Your task to perform on an android device: check android version Image 0: 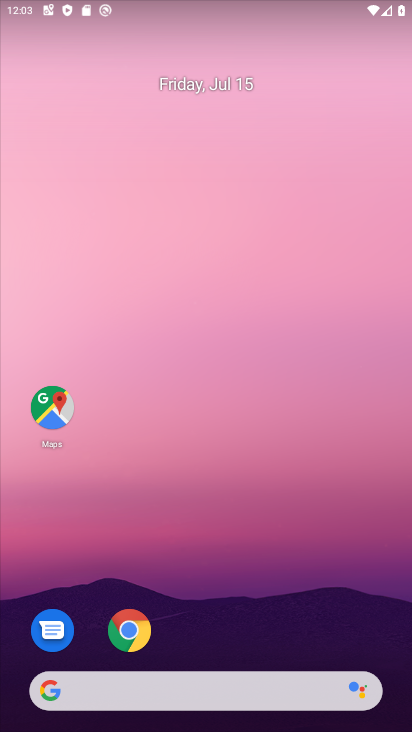
Step 0: drag from (238, 661) to (288, 278)
Your task to perform on an android device: check android version Image 1: 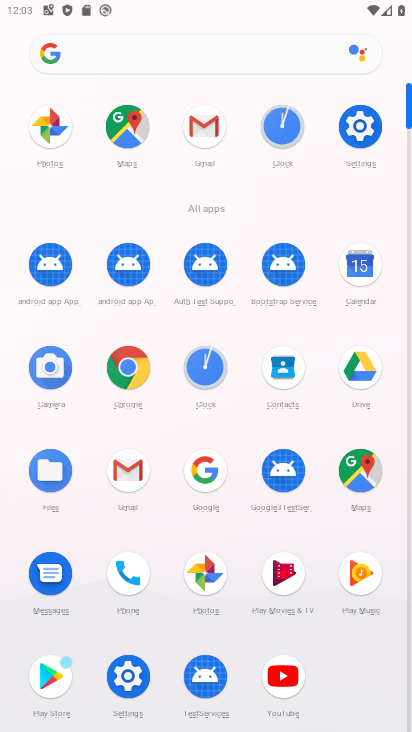
Step 1: click (104, 672)
Your task to perform on an android device: check android version Image 2: 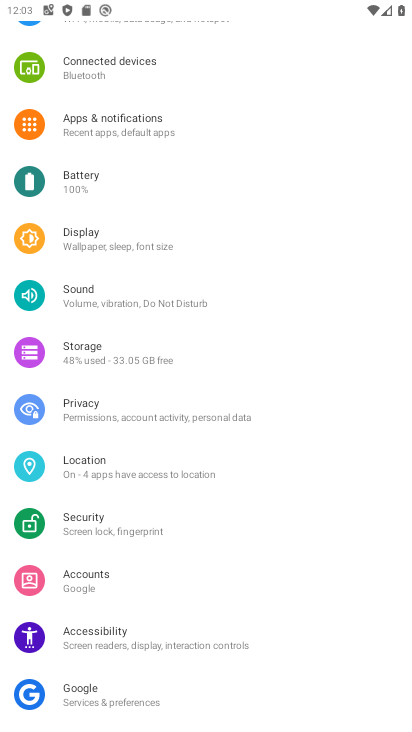
Step 2: drag from (232, 691) to (307, 446)
Your task to perform on an android device: check android version Image 3: 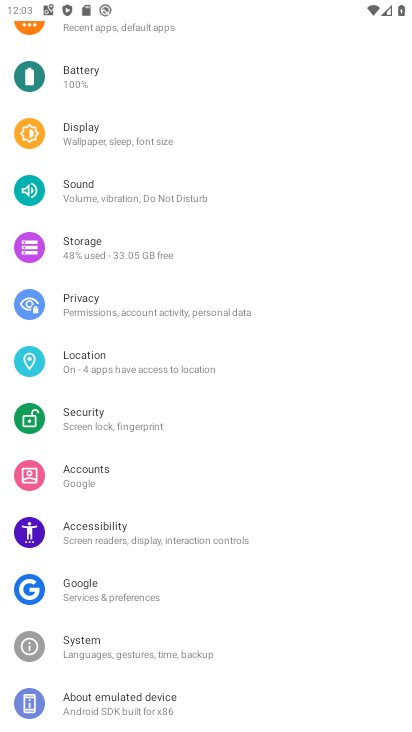
Step 3: click (122, 705)
Your task to perform on an android device: check android version Image 4: 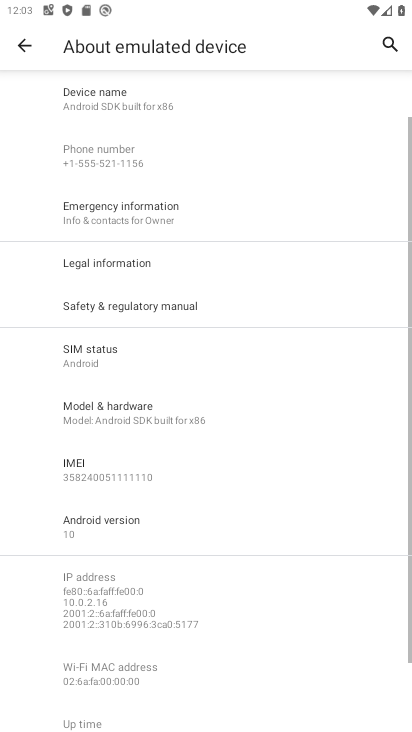
Step 4: click (130, 534)
Your task to perform on an android device: check android version Image 5: 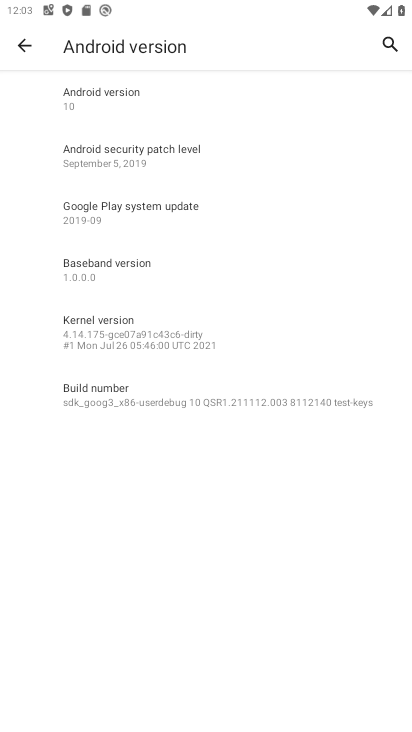
Step 5: task complete